Your task to perform on an android device: set an alarm Image 0: 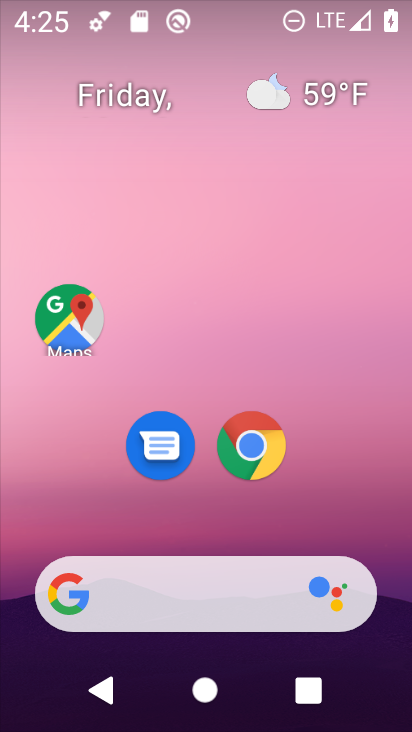
Step 0: drag from (389, 625) to (0, 36)
Your task to perform on an android device: set an alarm Image 1: 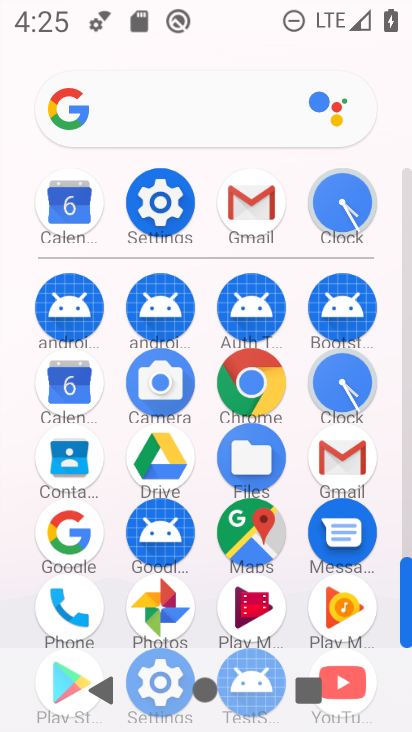
Step 1: click (348, 366)
Your task to perform on an android device: set an alarm Image 2: 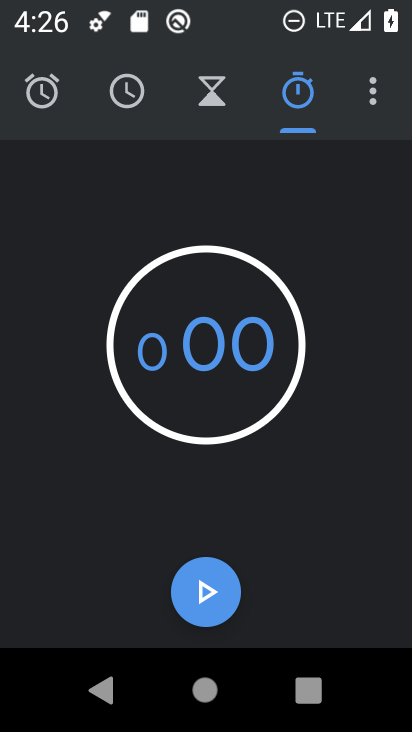
Step 2: click (32, 96)
Your task to perform on an android device: set an alarm Image 3: 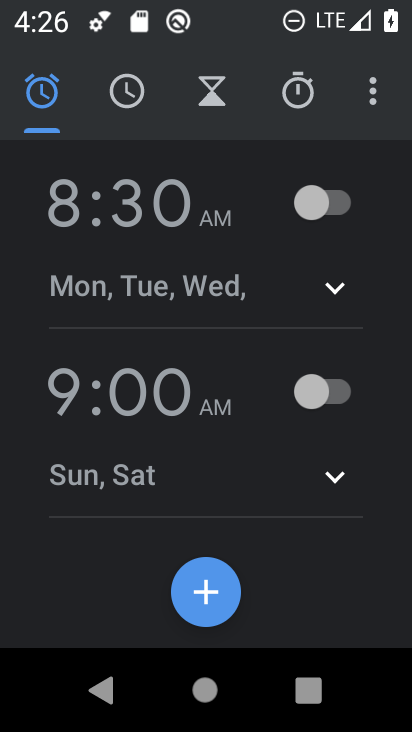
Step 3: click (116, 215)
Your task to perform on an android device: set an alarm Image 4: 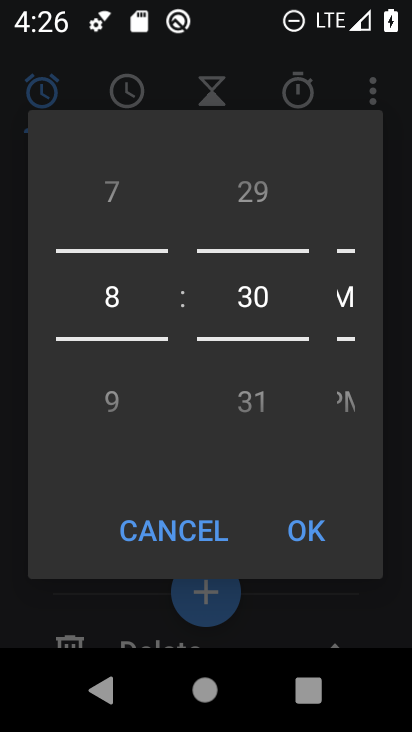
Step 4: drag from (122, 222) to (112, 429)
Your task to perform on an android device: set an alarm Image 5: 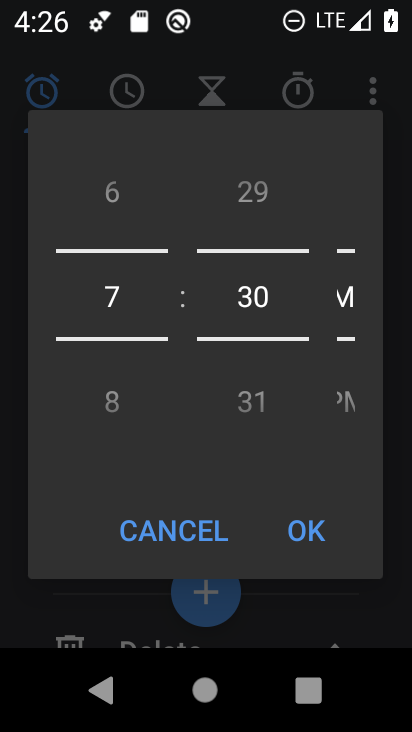
Step 5: drag from (120, 207) to (113, 388)
Your task to perform on an android device: set an alarm Image 6: 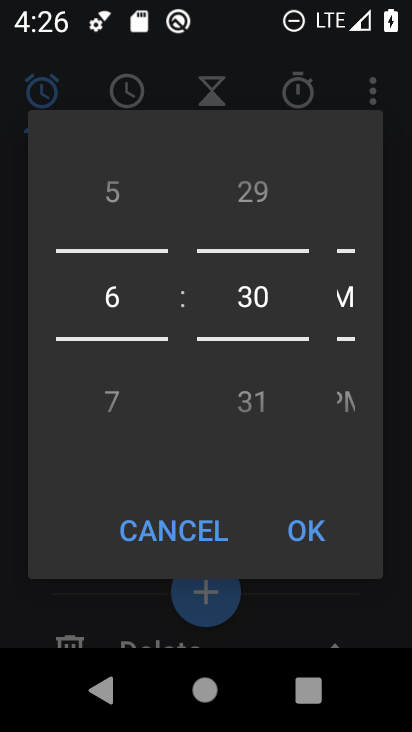
Step 6: click (309, 541)
Your task to perform on an android device: set an alarm Image 7: 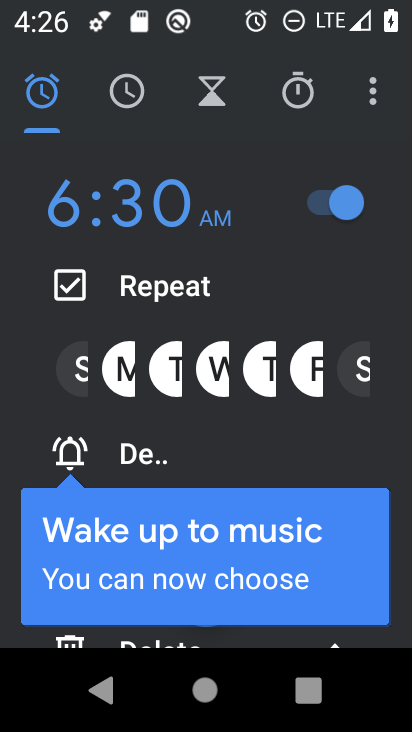
Step 7: click (359, 369)
Your task to perform on an android device: set an alarm Image 8: 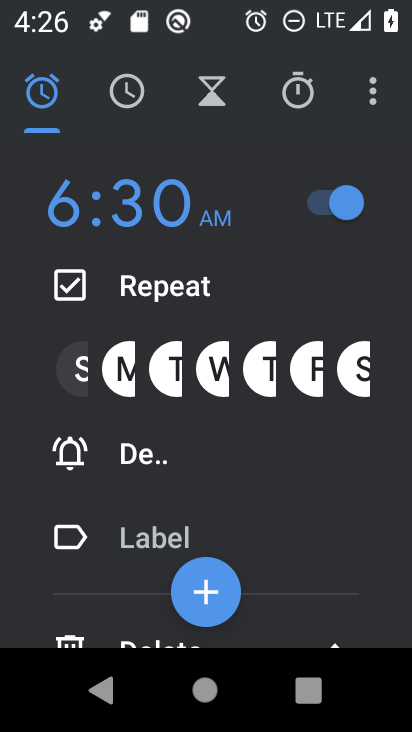
Step 8: drag from (328, 598) to (318, 340)
Your task to perform on an android device: set an alarm Image 9: 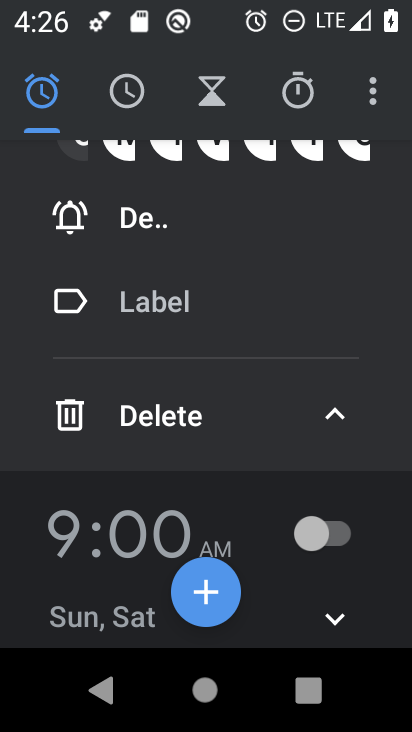
Step 9: click (335, 414)
Your task to perform on an android device: set an alarm Image 10: 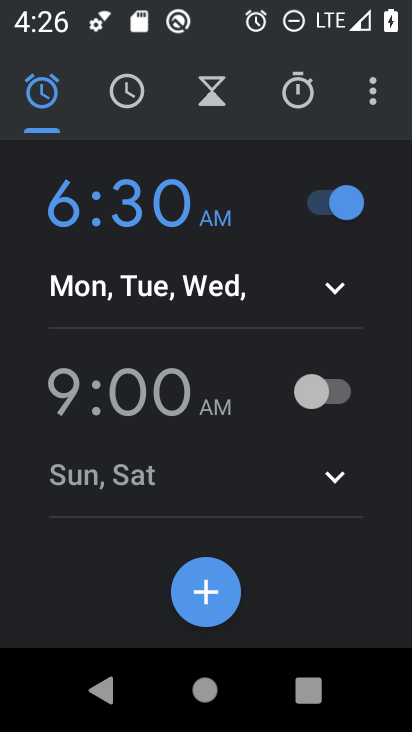
Step 10: task complete